Your task to perform on an android device: Open privacy settings Image 0: 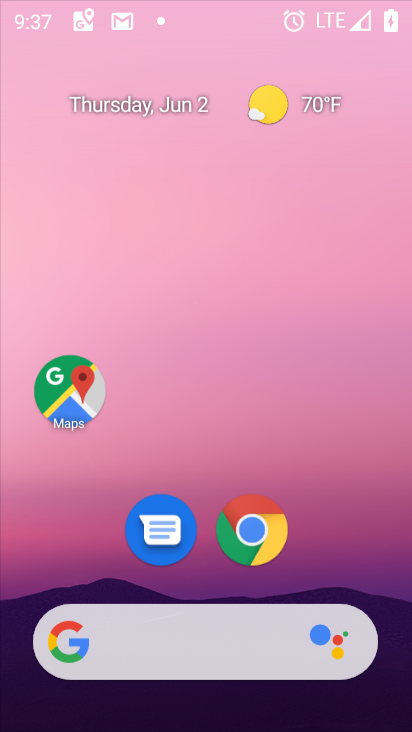
Step 0: click (254, 249)
Your task to perform on an android device: Open privacy settings Image 1: 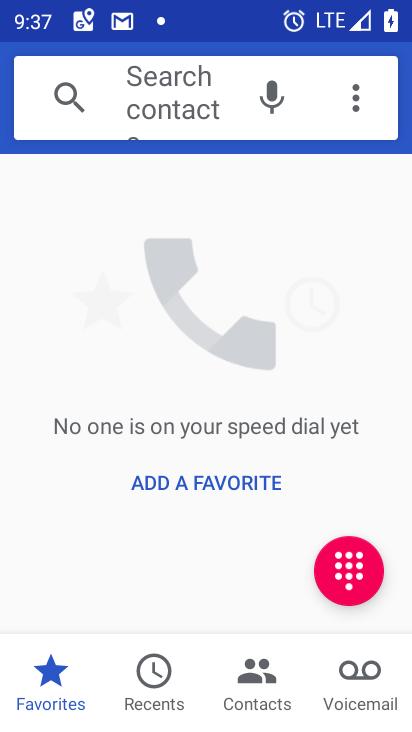
Step 1: press home button
Your task to perform on an android device: Open privacy settings Image 2: 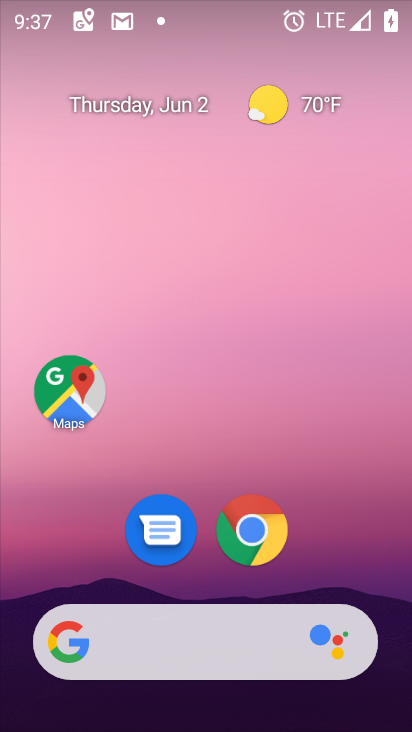
Step 2: drag from (210, 606) to (212, 310)
Your task to perform on an android device: Open privacy settings Image 3: 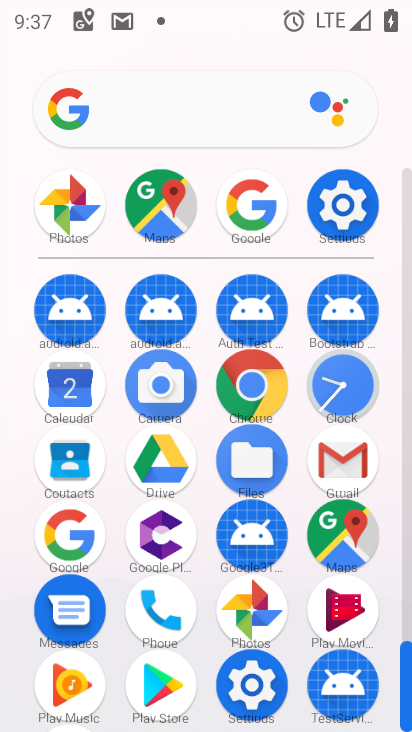
Step 3: click (332, 223)
Your task to perform on an android device: Open privacy settings Image 4: 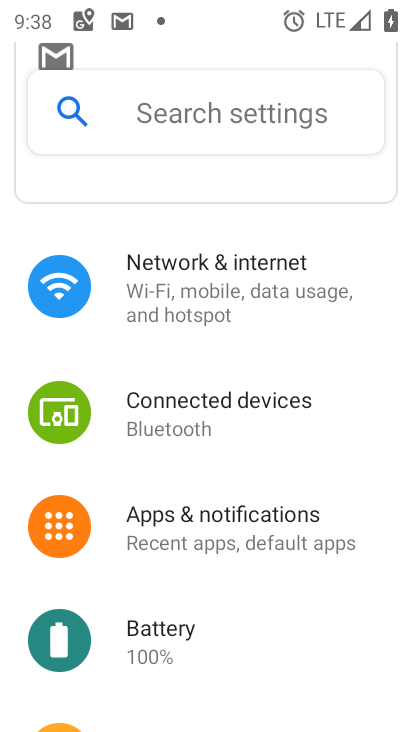
Step 4: click (255, 320)
Your task to perform on an android device: Open privacy settings Image 5: 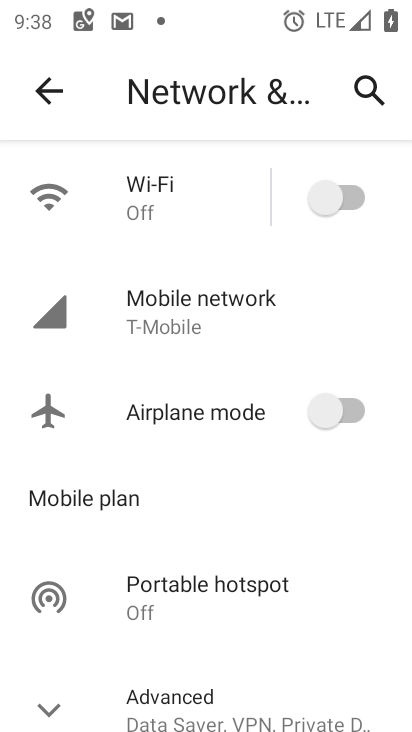
Step 5: press back button
Your task to perform on an android device: Open privacy settings Image 6: 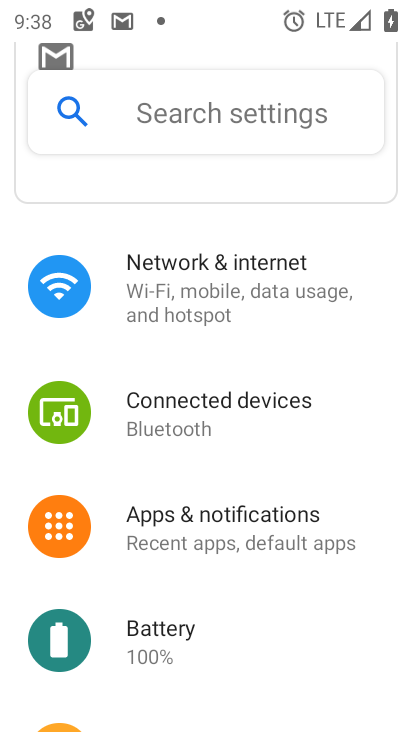
Step 6: drag from (208, 677) to (166, 293)
Your task to perform on an android device: Open privacy settings Image 7: 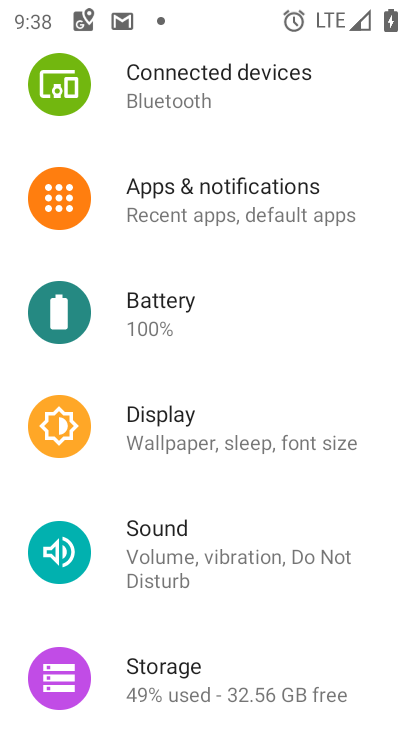
Step 7: drag from (167, 705) to (161, 398)
Your task to perform on an android device: Open privacy settings Image 8: 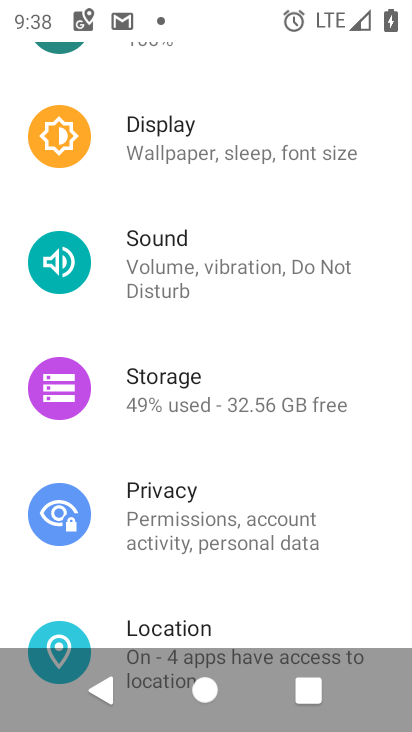
Step 8: click (152, 520)
Your task to perform on an android device: Open privacy settings Image 9: 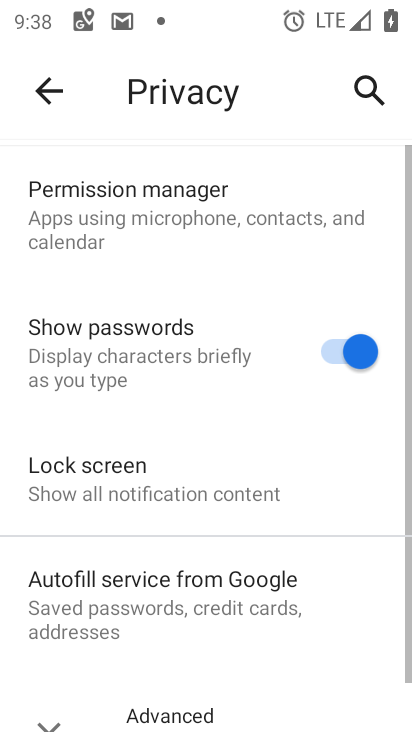
Step 9: click (175, 710)
Your task to perform on an android device: Open privacy settings Image 10: 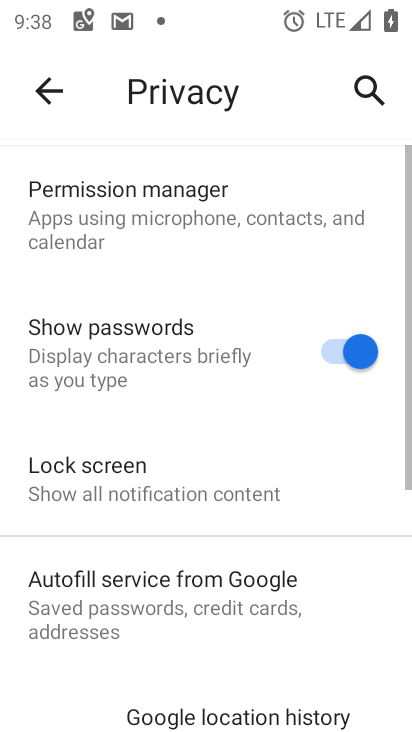
Step 10: task complete